Your task to perform on an android device: Check the weather Image 0: 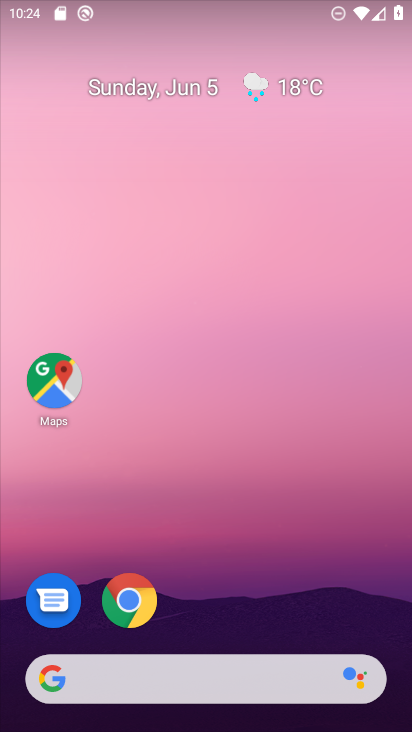
Step 0: click (264, 86)
Your task to perform on an android device: Check the weather Image 1: 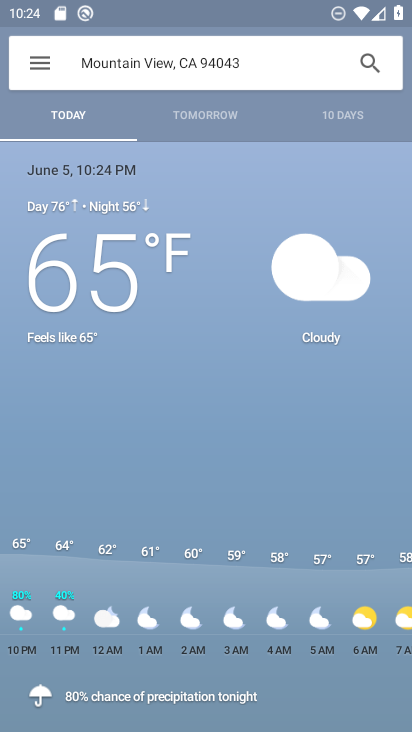
Step 1: task complete